Your task to perform on an android device: snooze an email in the gmail app Image 0: 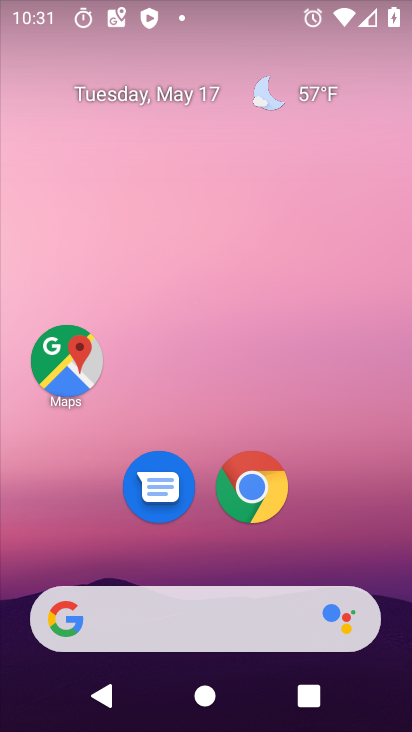
Step 0: drag from (242, 714) to (250, 134)
Your task to perform on an android device: snooze an email in the gmail app Image 1: 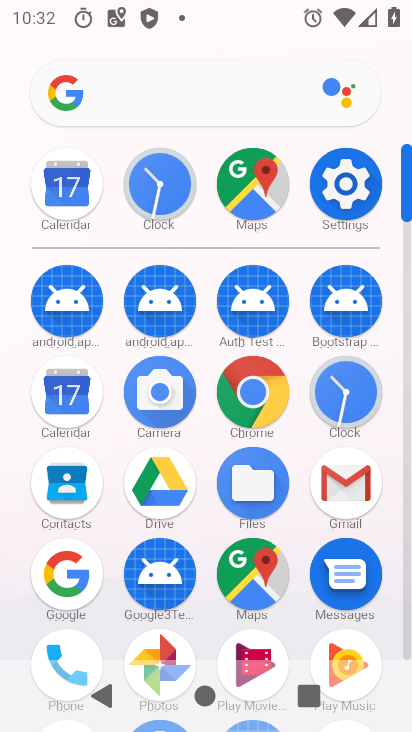
Step 1: click (351, 495)
Your task to perform on an android device: snooze an email in the gmail app Image 2: 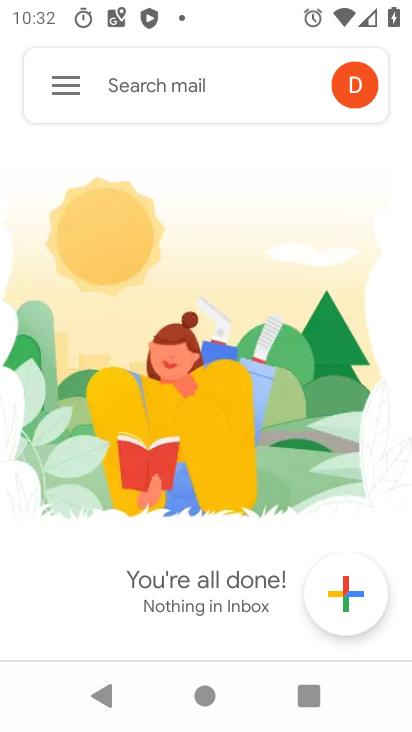
Step 2: task complete